Your task to perform on an android device: Open internet settings Image 0: 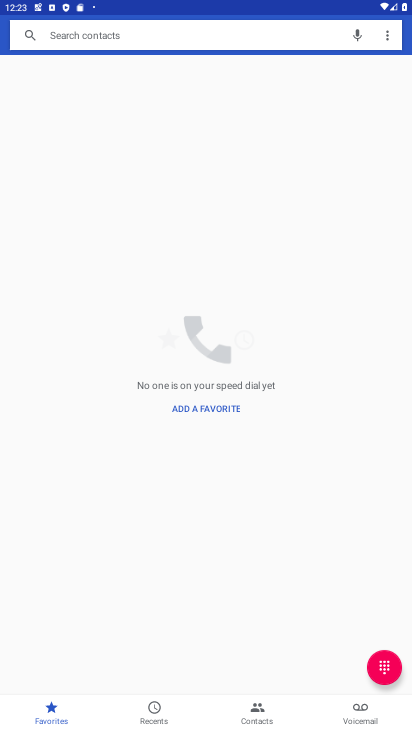
Step 0: press home button
Your task to perform on an android device: Open internet settings Image 1: 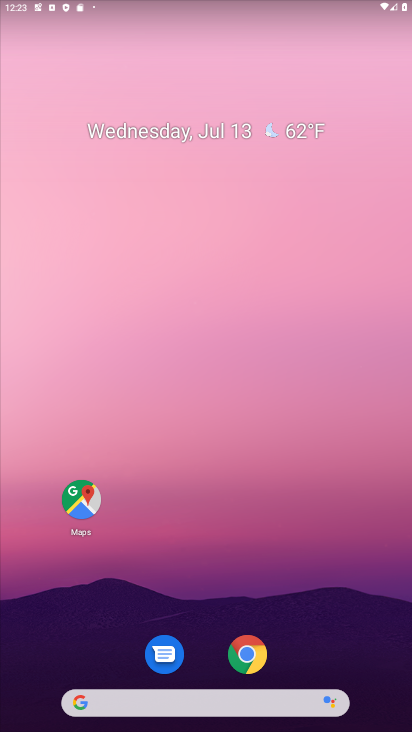
Step 1: drag from (273, 712) to (235, 181)
Your task to perform on an android device: Open internet settings Image 2: 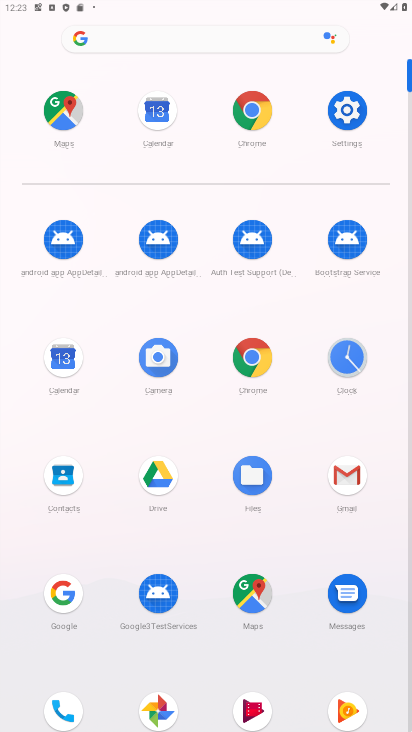
Step 2: click (342, 113)
Your task to perform on an android device: Open internet settings Image 3: 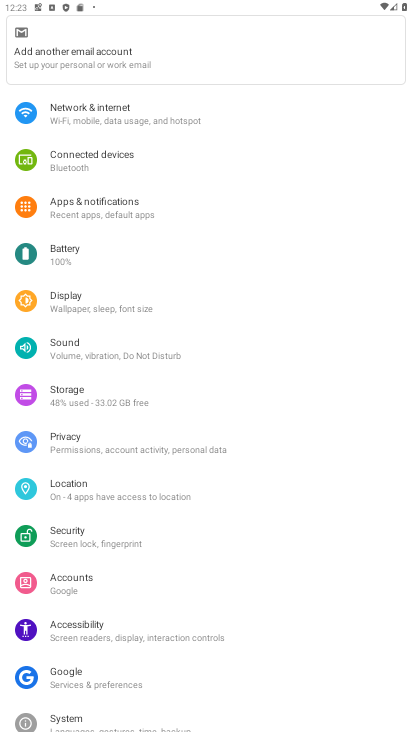
Step 3: click (104, 123)
Your task to perform on an android device: Open internet settings Image 4: 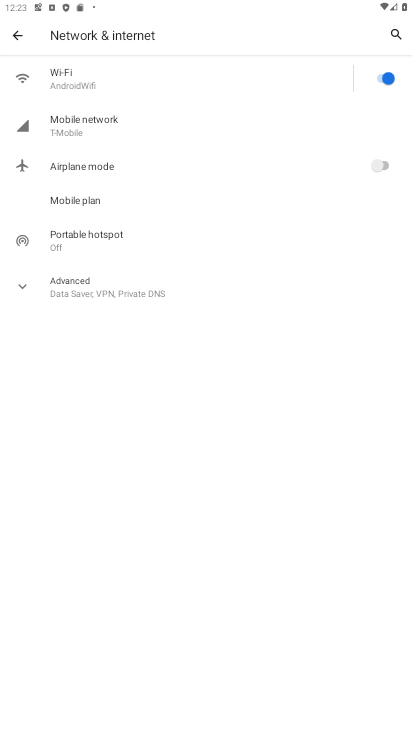
Step 4: task complete